Your task to perform on an android device: Go to privacy settings Image 0: 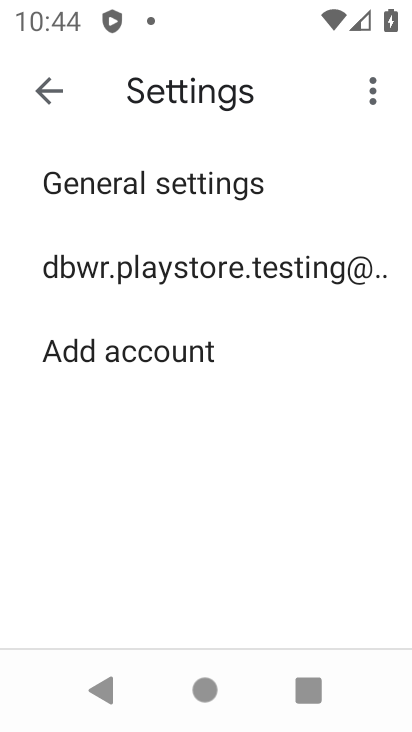
Step 0: press home button
Your task to perform on an android device: Go to privacy settings Image 1: 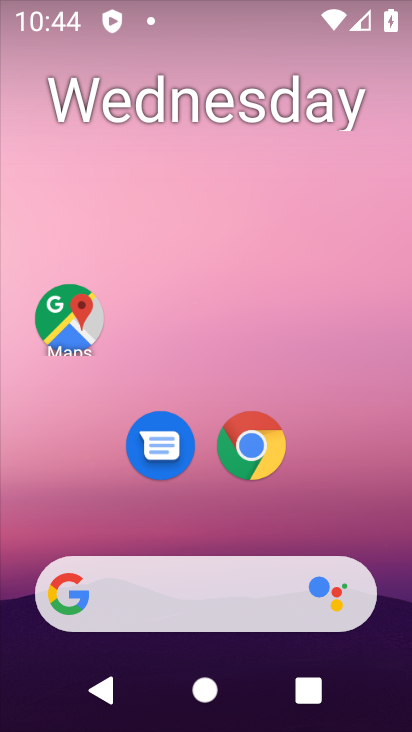
Step 1: drag from (287, 522) to (313, 84)
Your task to perform on an android device: Go to privacy settings Image 2: 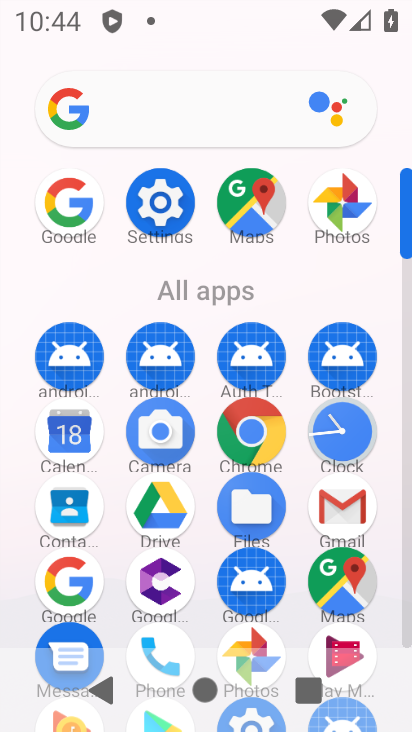
Step 2: click (138, 218)
Your task to perform on an android device: Go to privacy settings Image 3: 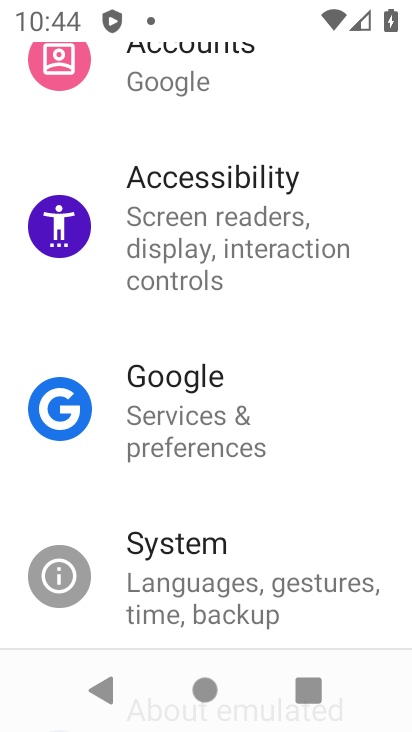
Step 3: drag from (315, 228) to (283, 593)
Your task to perform on an android device: Go to privacy settings Image 4: 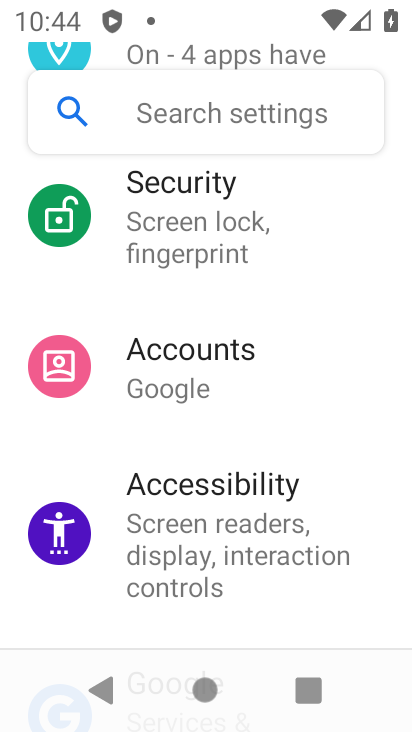
Step 4: drag from (312, 271) to (306, 671)
Your task to perform on an android device: Go to privacy settings Image 5: 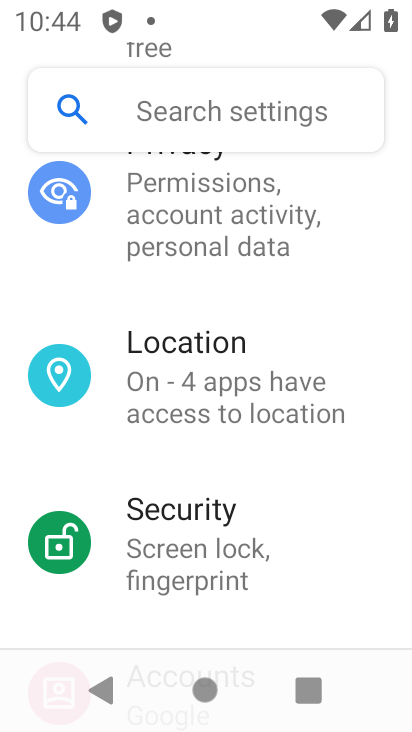
Step 5: drag from (260, 218) to (229, 567)
Your task to perform on an android device: Go to privacy settings Image 6: 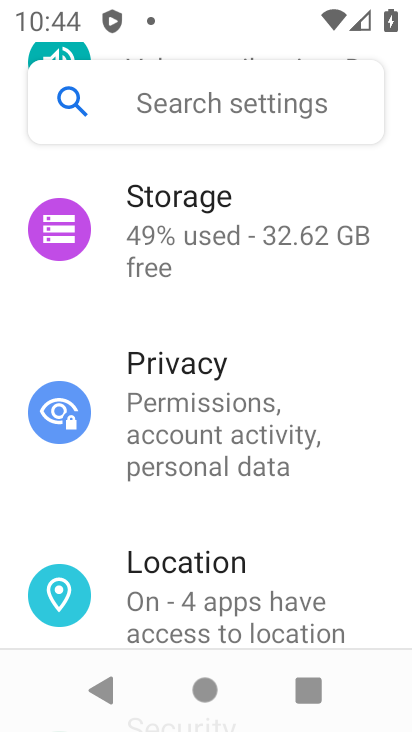
Step 6: click (201, 405)
Your task to perform on an android device: Go to privacy settings Image 7: 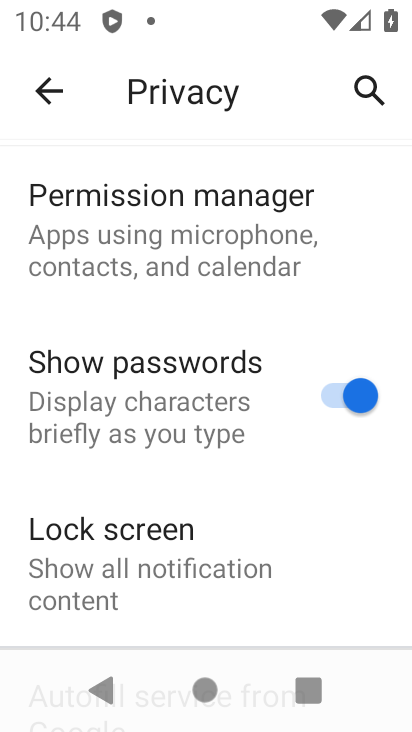
Step 7: task complete